Your task to perform on an android device: change keyboard looks Image 0: 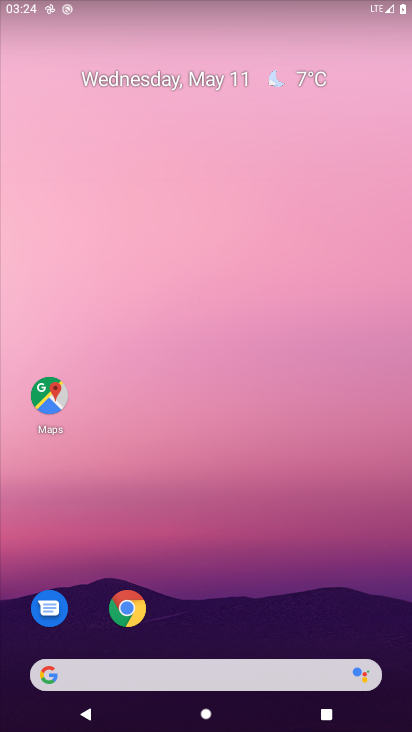
Step 0: drag from (224, 639) to (303, 38)
Your task to perform on an android device: change keyboard looks Image 1: 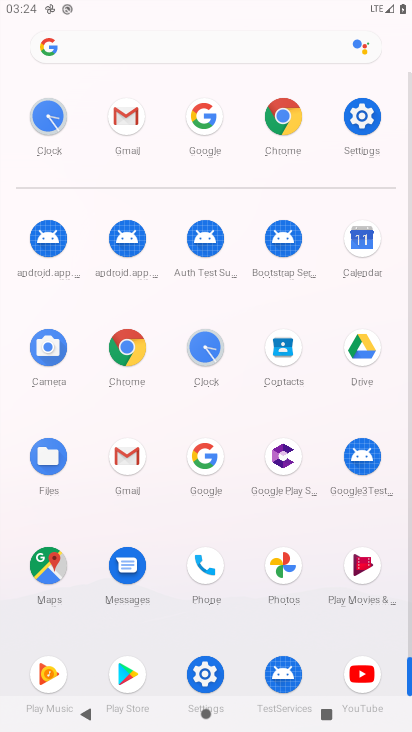
Step 1: click (366, 112)
Your task to perform on an android device: change keyboard looks Image 2: 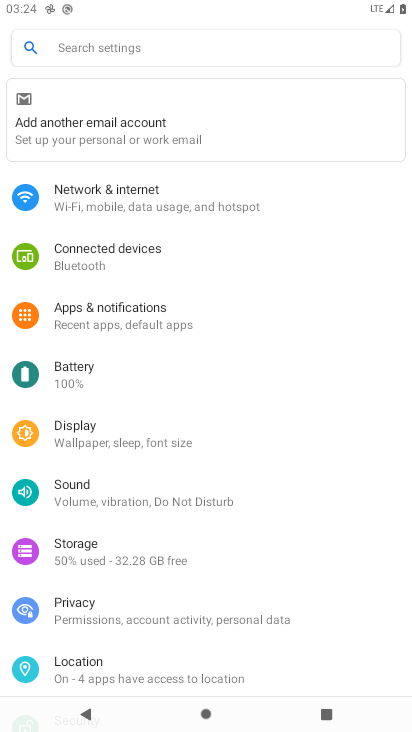
Step 2: drag from (196, 643) to (240, 184)
Your task to perform on an android device: change keyboard looks Image 3: 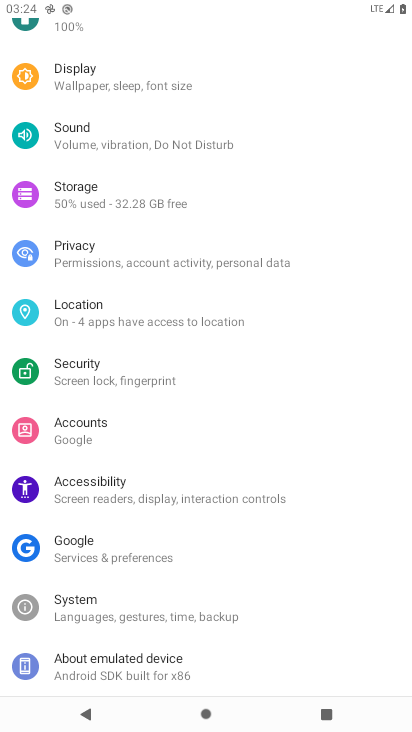
Step 3: click (123, 602)
Your task to perform on an android device: change keyboard looks Image 4: 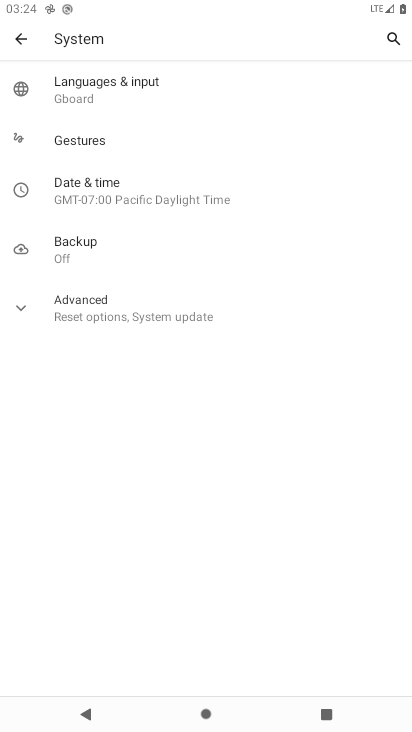
Step 4: click (106, 90)
Your task to perform on an android device: change keyboard looks Image 5: 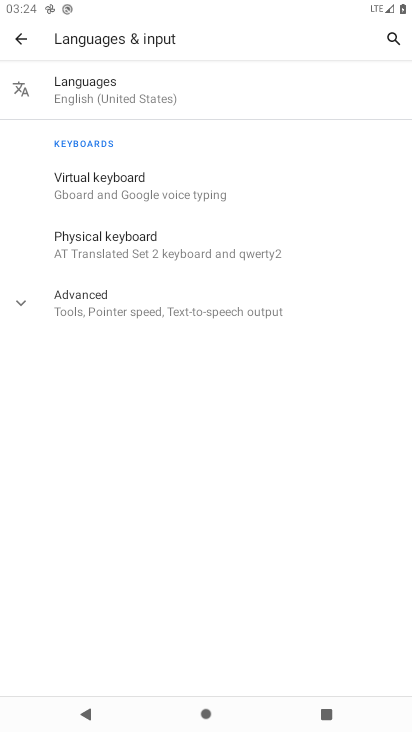
Step 5: click (135, 188)
Your task to perform on an android device: change keyboard looks Image 6: 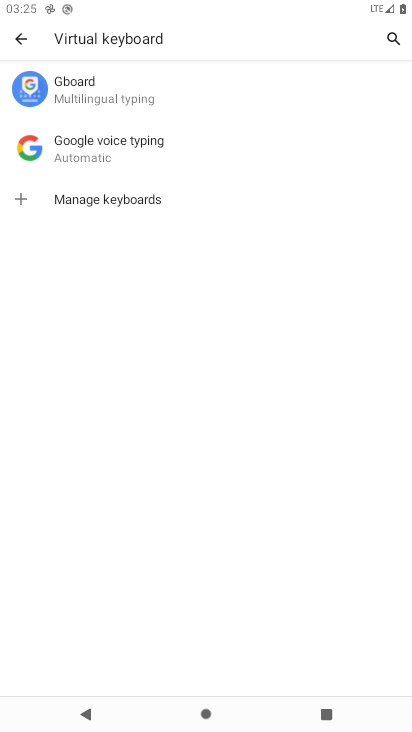
Step 6: click (113, 92)
Your task to perform on an android device: change keyboard looks Image 7: 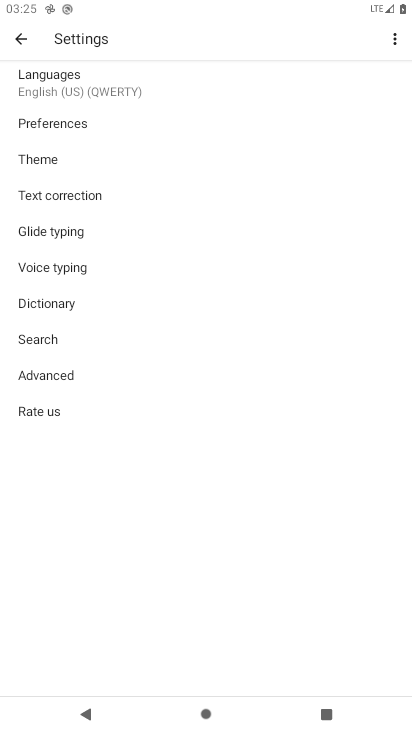
Step 7: click (60, 157)
Your task to perform on an android device: change keyboard looks Image 8: 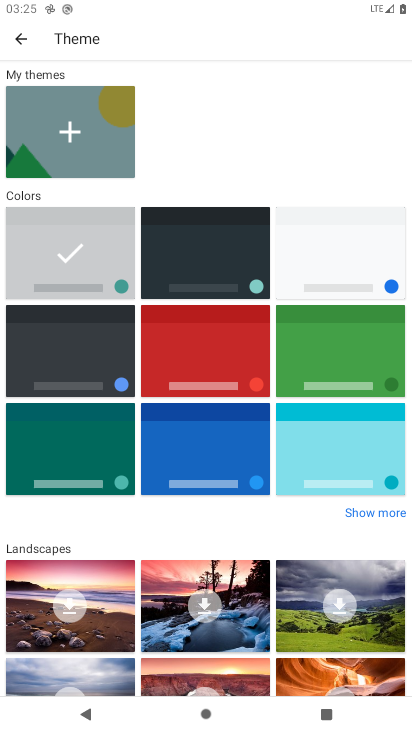
Step 8: click (257, 371)
Your task to perform on an android device: change keyboard looks Image 9: 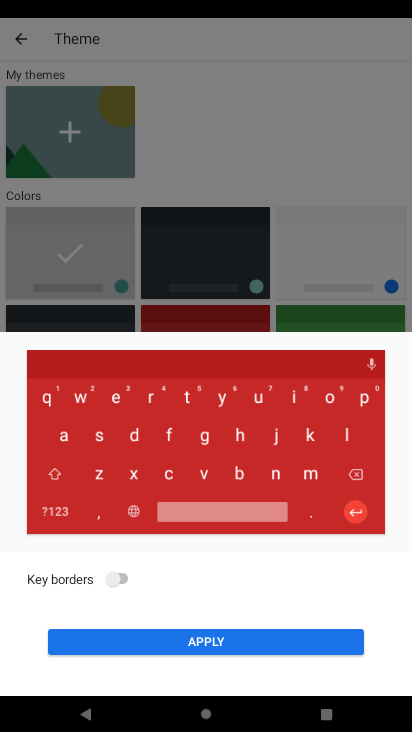
Step 9: click (212, 635)
Your task to perform on an android device: change keyboard looks Image 10: 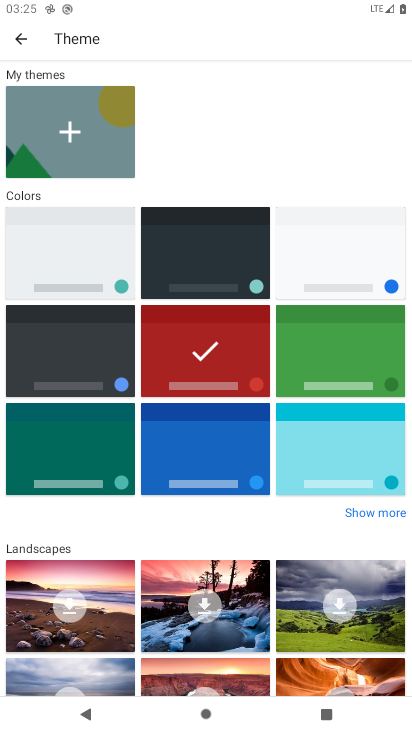
Step 10: task complete